Your task to perform on an android device: open a new tab in the chrome app Image 0: 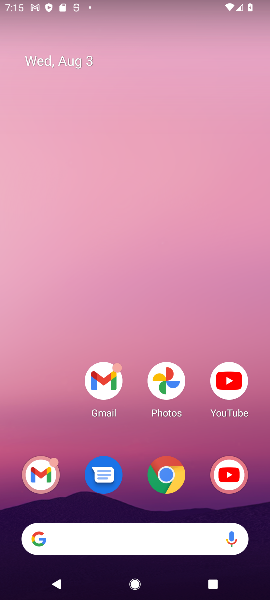
Step 0: click (164, 471)
Your task to perform on an android device: open a new tab in the chrome app Image 1: 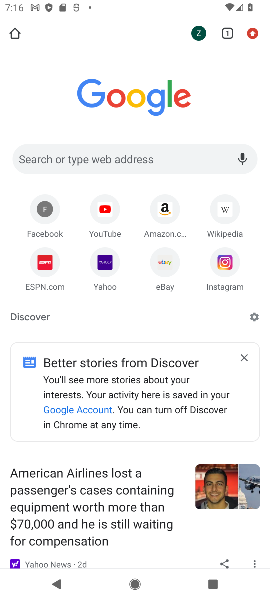
Step 1: click (252, 28)
Your task to perform on an android device: open a new tab in the chrome app Image 2: 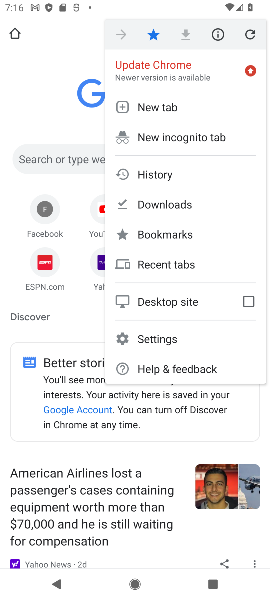
Step 2: click (134, 109)
Your task to perform on an android device: open a new tab in the chrome app Image 3: 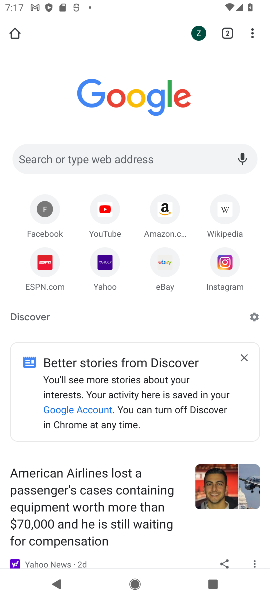
Step 3: task complete